Your task to perform on an android device: Open Android settings Image 0: 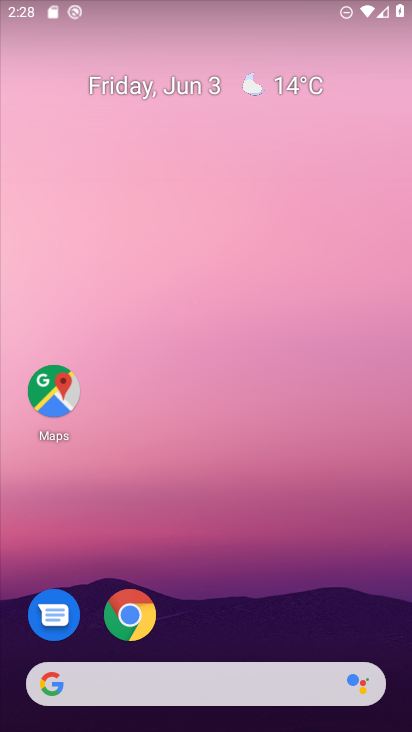
Step 0: drag from (195, 619) to (245, 6)
Your task to perform on an android device: Open Android settings Image 1: 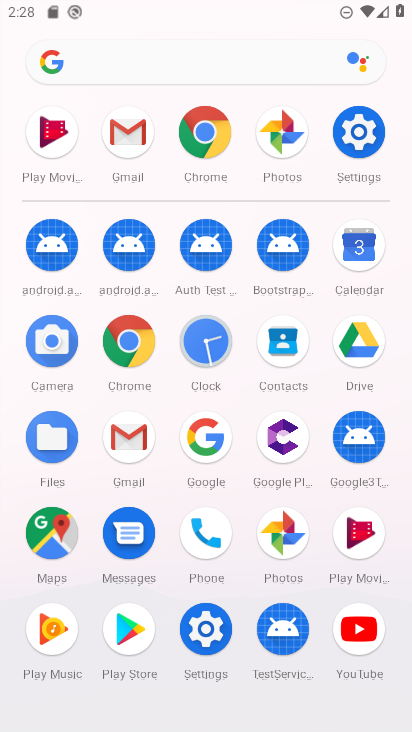
Step 1: click (346, 143)
Your task to perform on an android device: Open Android settings Image 2: 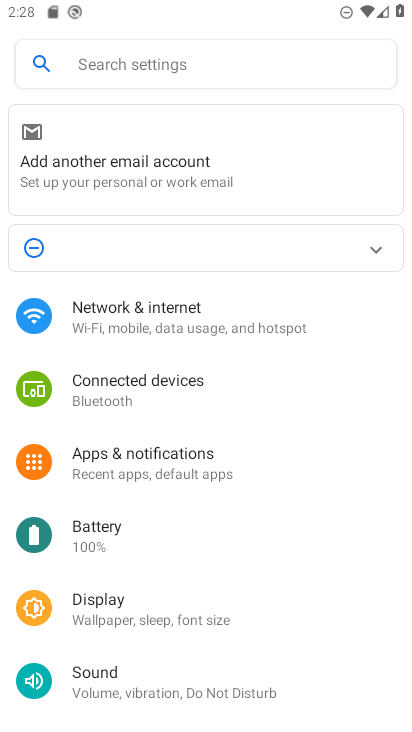
Step 2: drag from (173, 575) to (202, 175)
Your task to perform on an android device: Open Android settings Image 3: 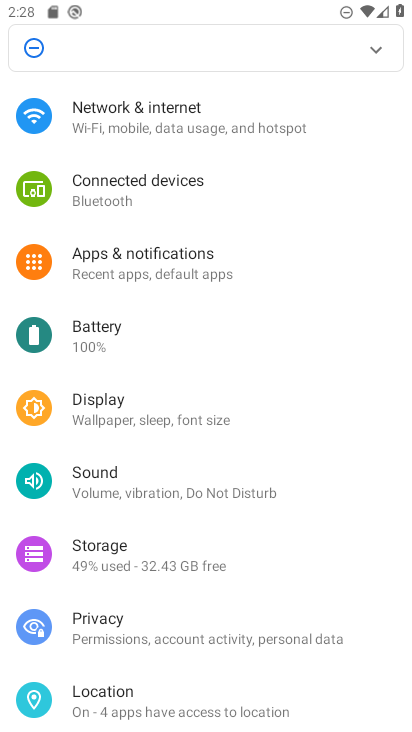
Step 3: drag from (188, 655) to (216, 148)
Your task to perform on an android device: Open Android settings Image 4: 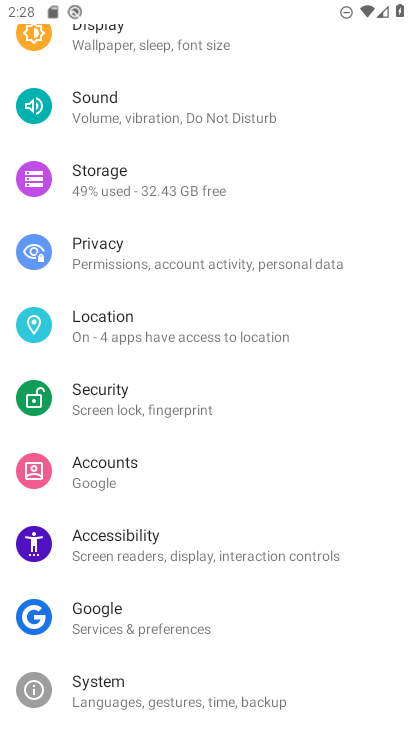
Step 4: drag from (187, 634) to (209, 5)
Your task to perform on an android device: Open Android settings Image 5: 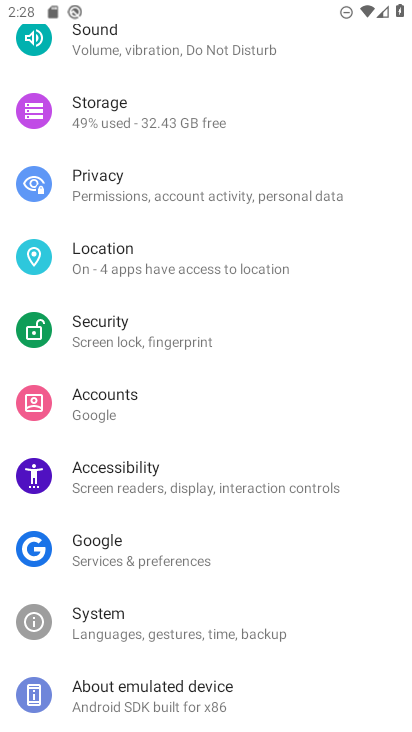
Step 5: click (186, 695)
Your task to perform on an android device: Open Android settings Image 6: 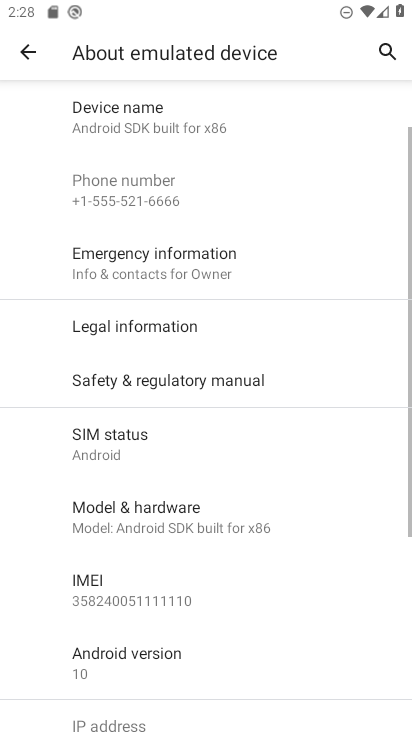
Step 6: drag from (184, 534) to (255, 178)
Your task to perform on an android device: Open Android settings Image 7: 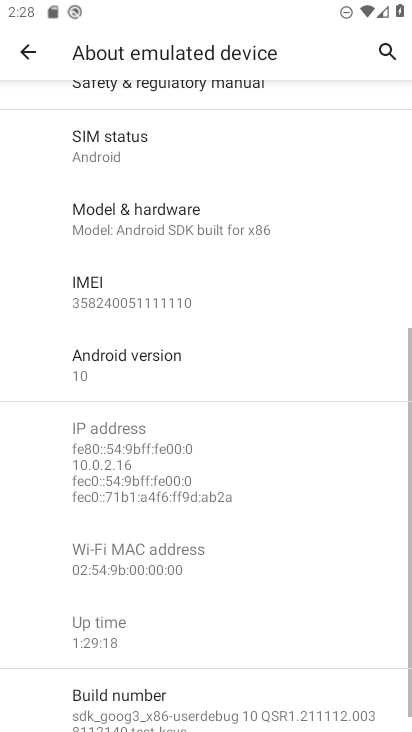
Step 7: click (142, 368)
Your task to perform on an android device: Open Android settings Image 8: 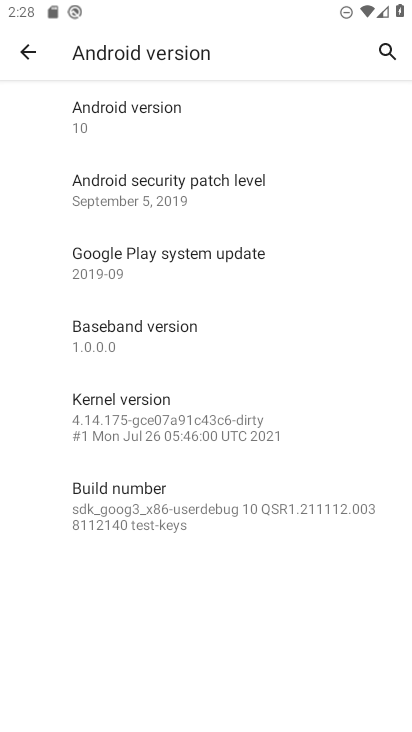
Step 8: drag from (175, 527) to (276, 106)
Your task to perform on an android device: Open Android settings Image 9: 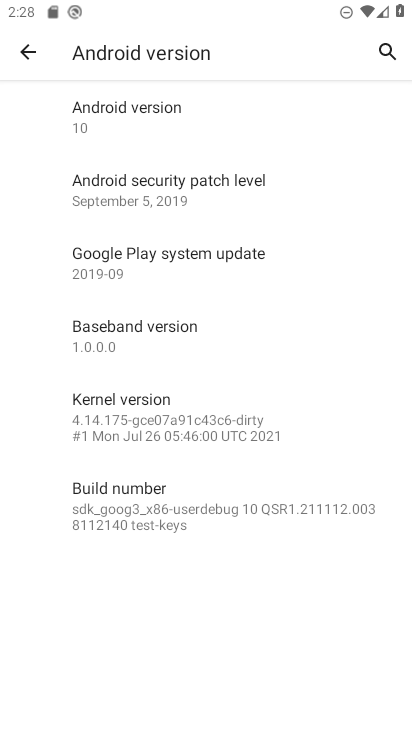
Step 9: click (188, 129)
Your task to perform on an android device: Open Android settings Image 10: 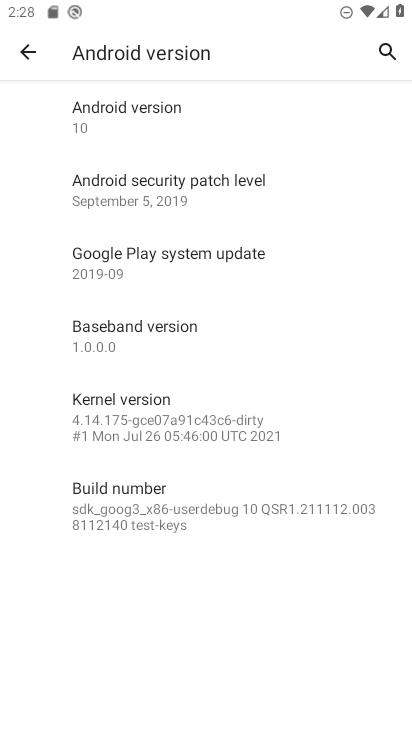
Step 10: task complete